Your task to perform on an android device: Go to settings Image 0: 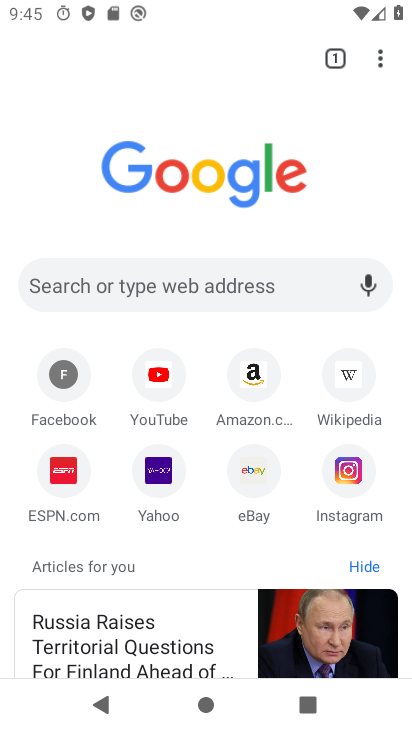
Step 0: press home button
Your task to perform on an android device: Go to settings Image 1: 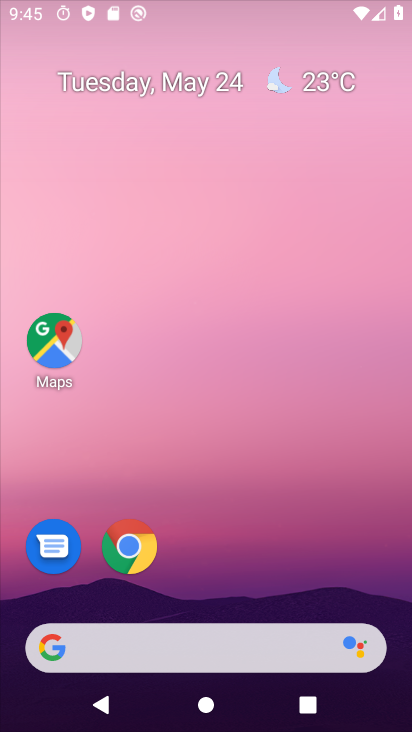
Step 1: drag from (208, 583) to (259, 96)
Your task to perform on an android device: Go to settings Image 2: 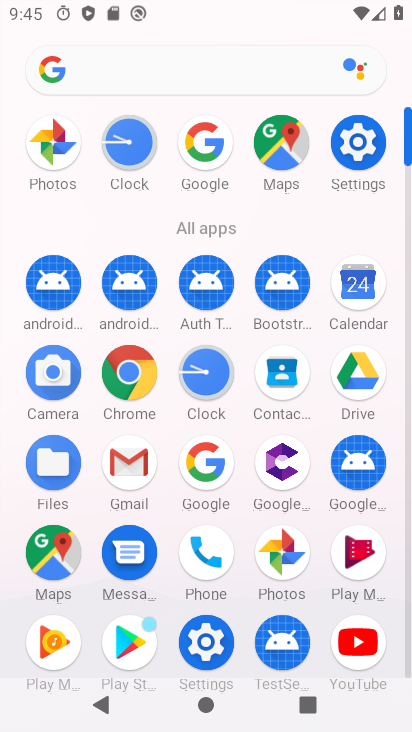
Step 2: click (361, 147)
Your task to perform on an android device: Go to settings Image 3: 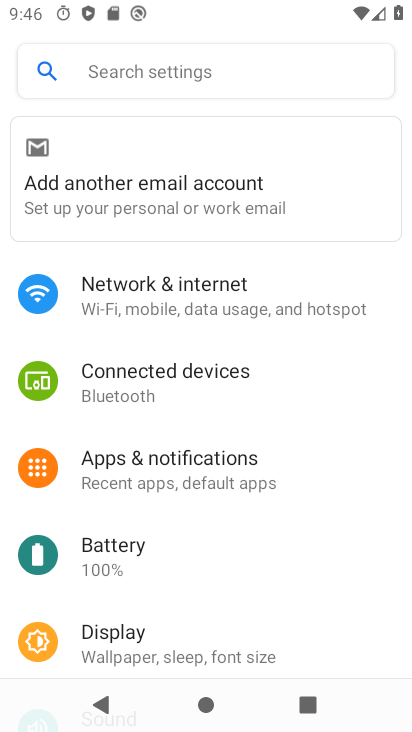
Step 3: task complete